Your task to perform on an android device: Open the phone app and click the voicemail tab. Image 0: 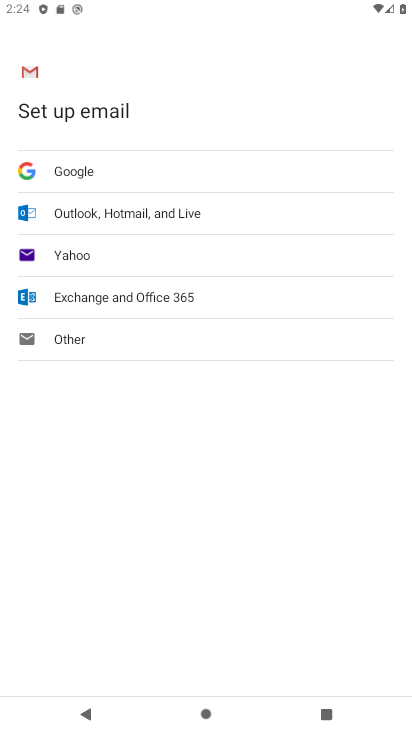
Step 0: press home button
Your task to perform on an android device: Open the phone app and click the voicemail tab. Image 1: 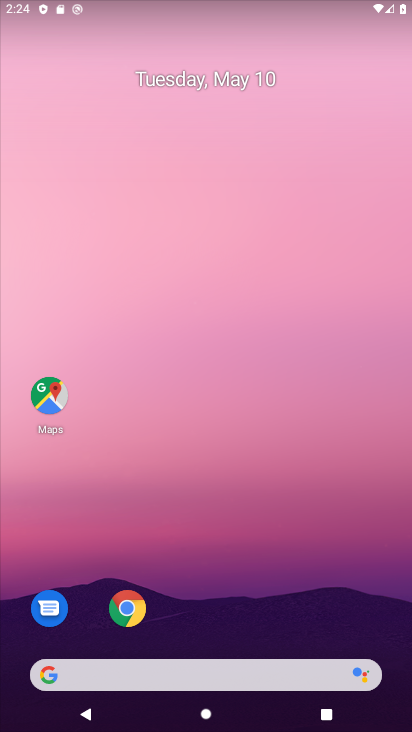
Step 1: drag from (400, 664) to (294, 95)
Your task to perform on an android device: Open the phone app and click the voicemail tab. Image 2: 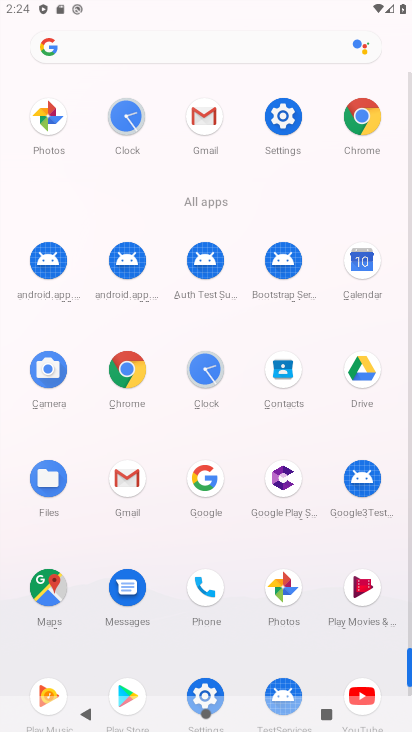
Step 2: click (410, 695)
Your task to perform on an android device: Open the phone app and click the voicemail tab. Image 3: 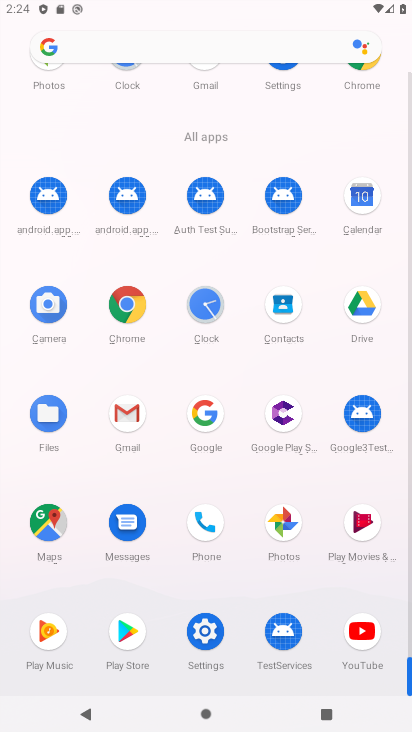
Step 3: click (204, 519)
Your task to perform on an android device: Open the phone app and click the voicemail tab. Image 4: 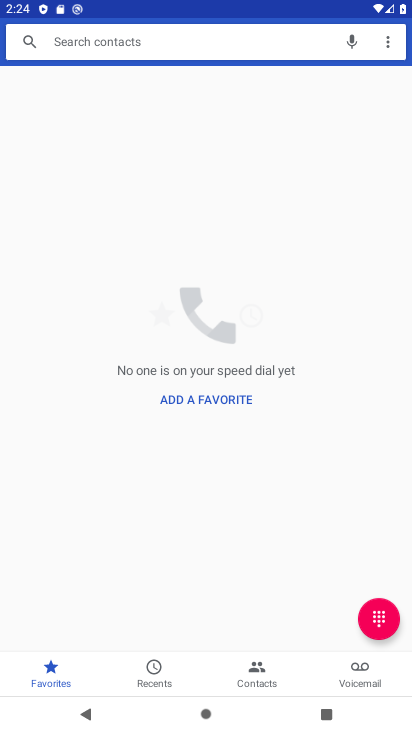
Step 4: click (366, 671)
Your task to perform on an android device: Open the phone app and click the voicemail tab. Image 5: 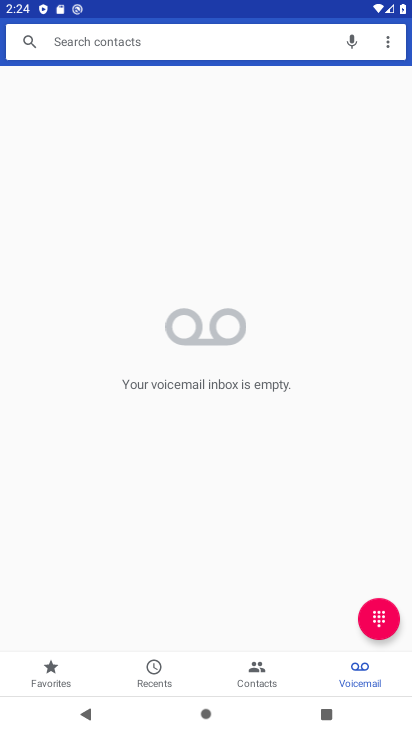
Step 5: task complete